Your task to perform on an android device: Search for sushi restaurants on Maps Image 0: 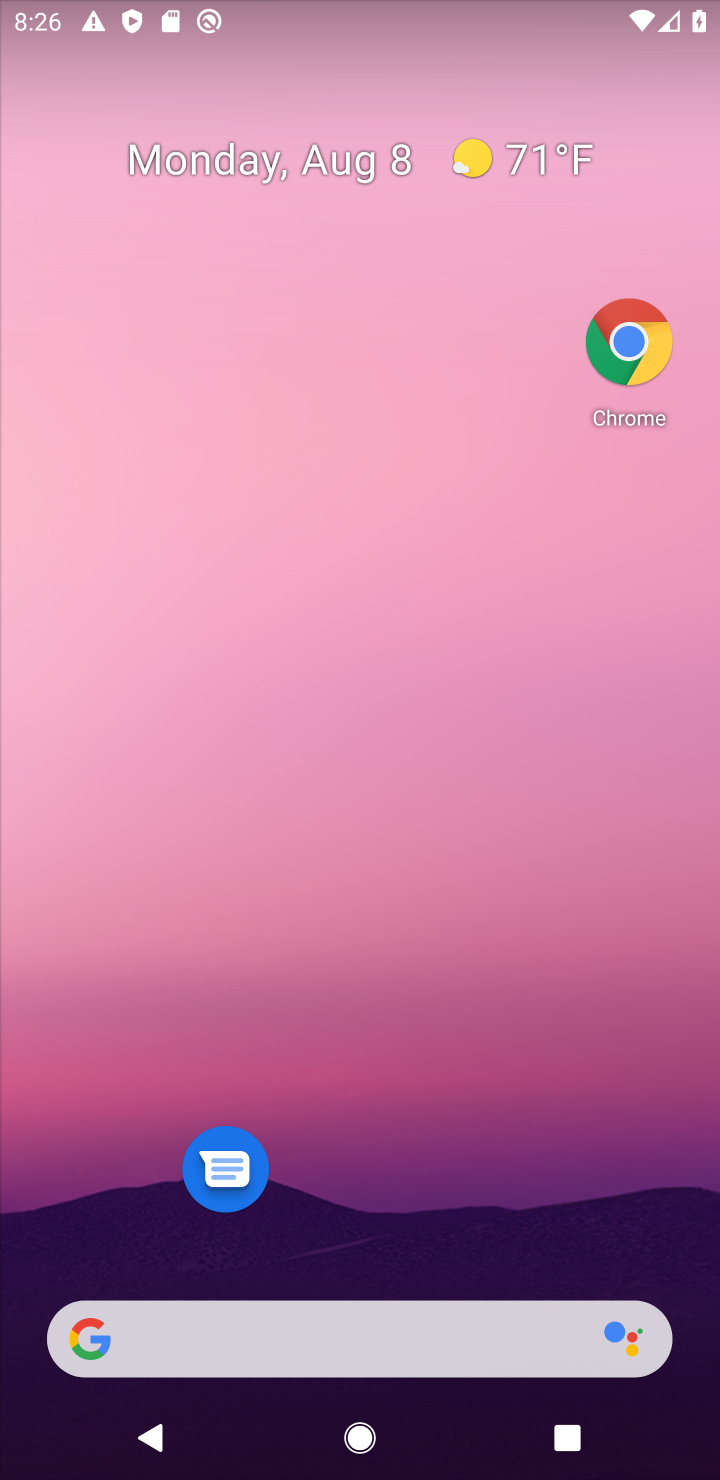
Step 0: drag from (465, 1207) to (558, 195)
Your task to perform on an android device: Search for sushi restaurants on Maps Image 1: 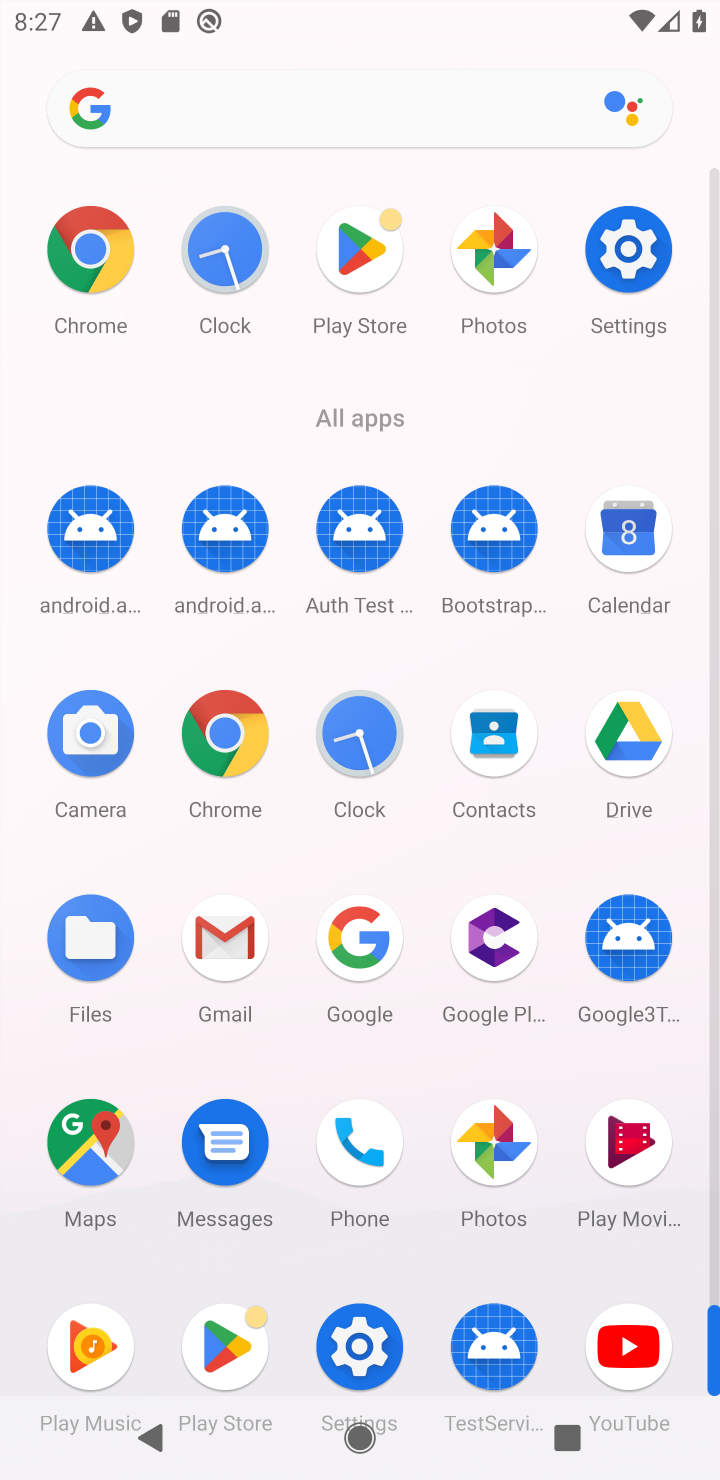
Step 1: click (119, 1167)
Your task to perform on an android device: Search for sushi restaurants on Maps Image 2: 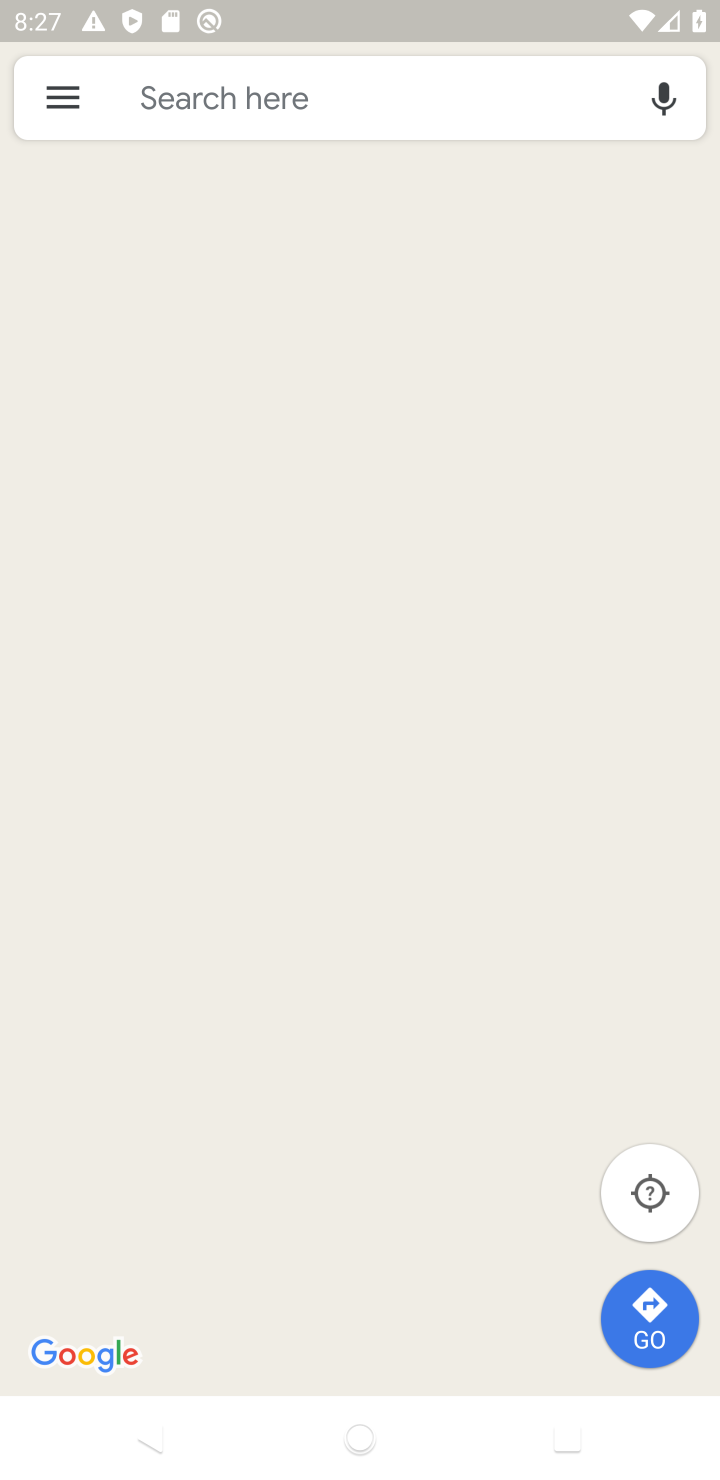
Step 2: click (252, 104)
Your task to perform on an android device: Search for sushi restaurants on Maps Image 3: 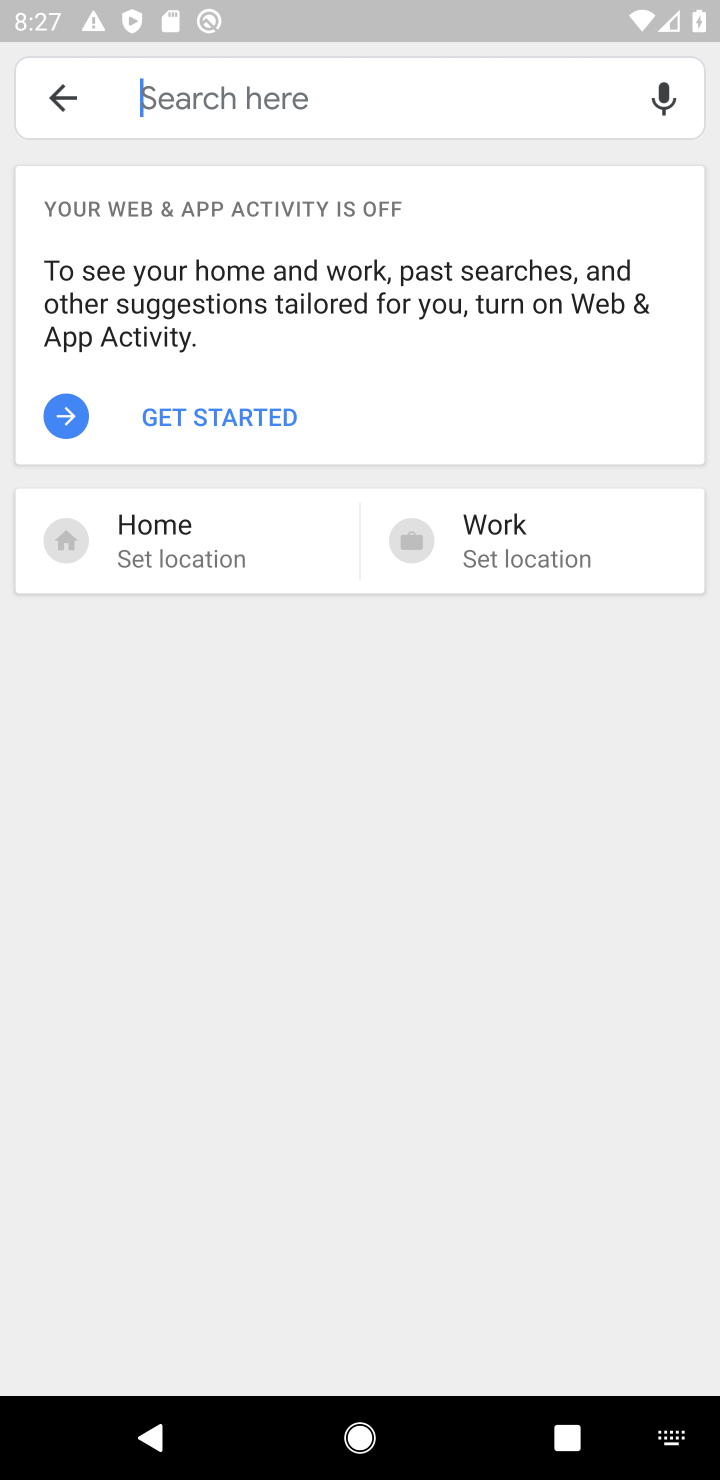
Step 3: click (252, 97)
Your task to perform on an android device: Search for sushi restaurants on Maps Image 4: 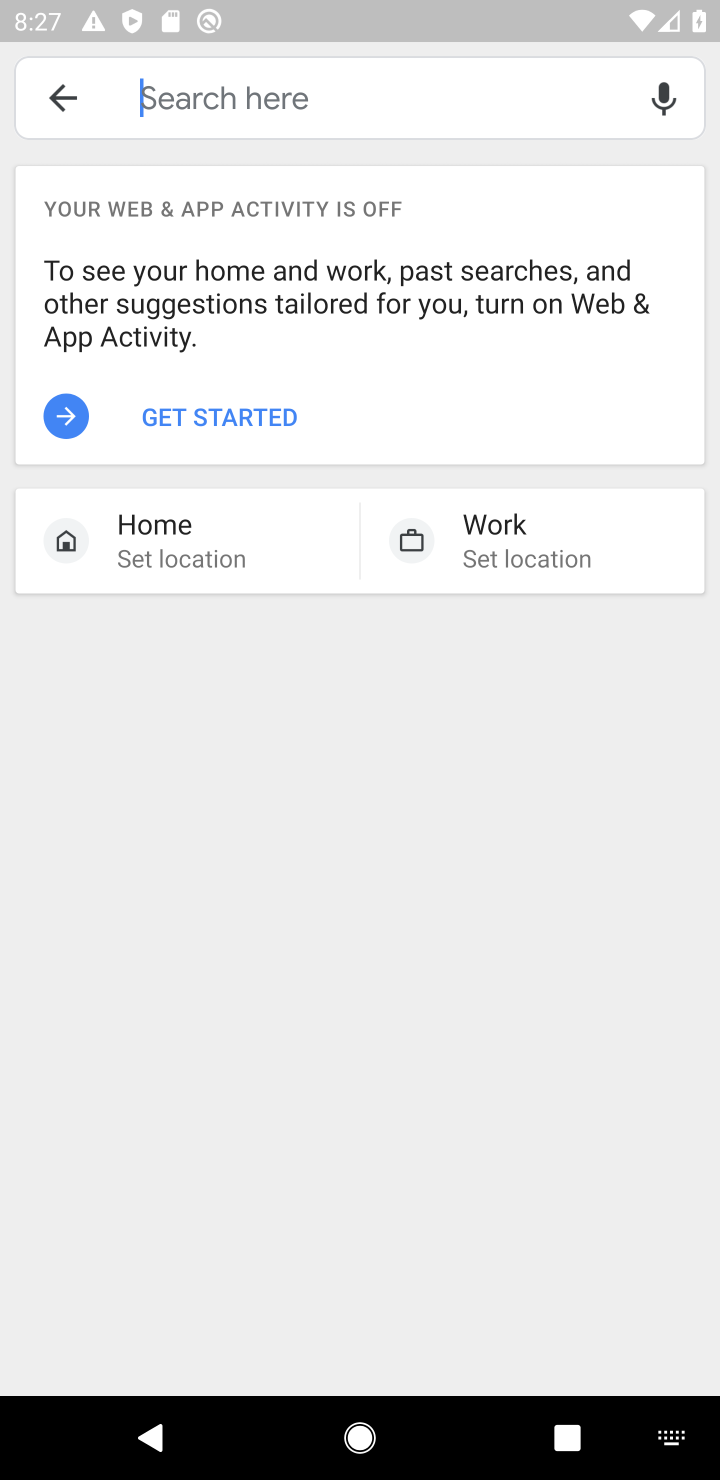
Step 4: click (258, 99)
Your task to perform on an android device: Search for sushi restaurants on Maps Image 5: 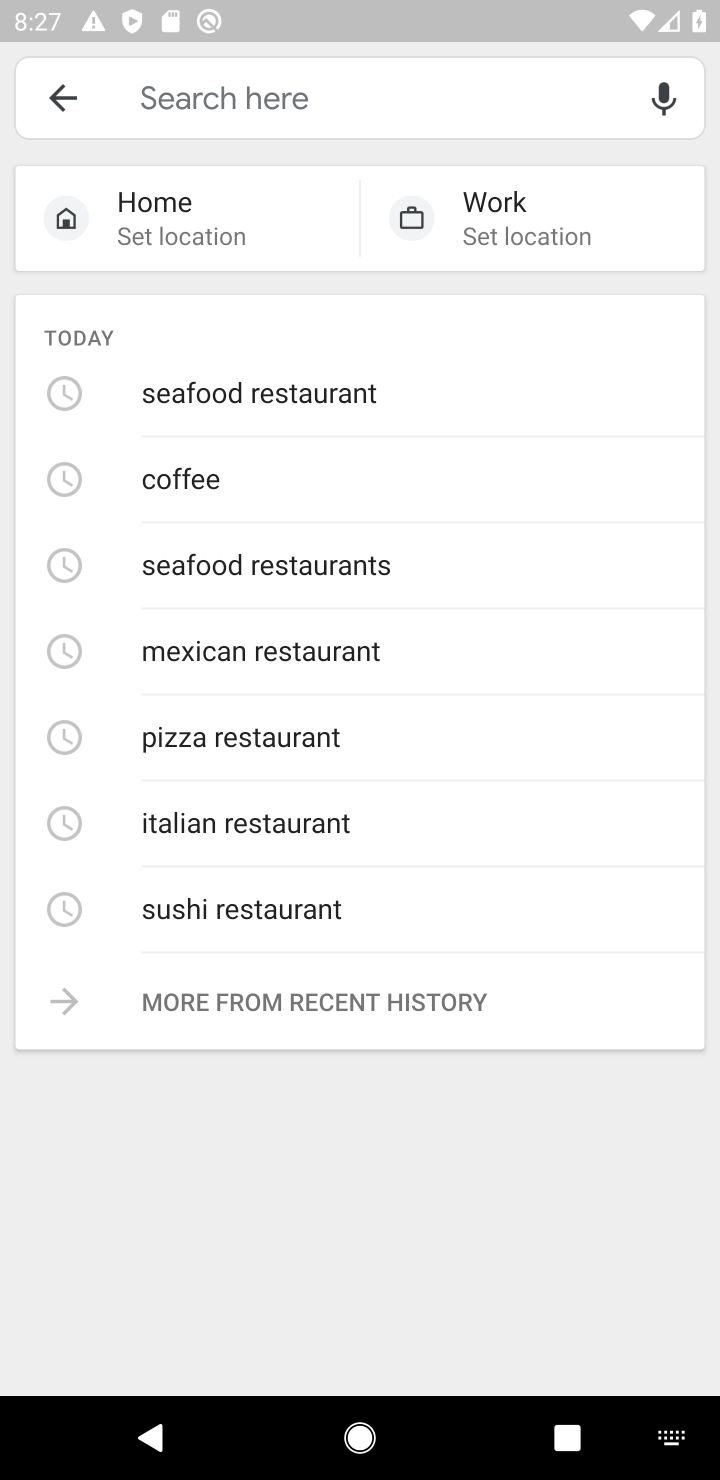
Step 5: click (355, 889)
Your task to perform on an android device: Search for sushi restaurants on Maps Image 6: 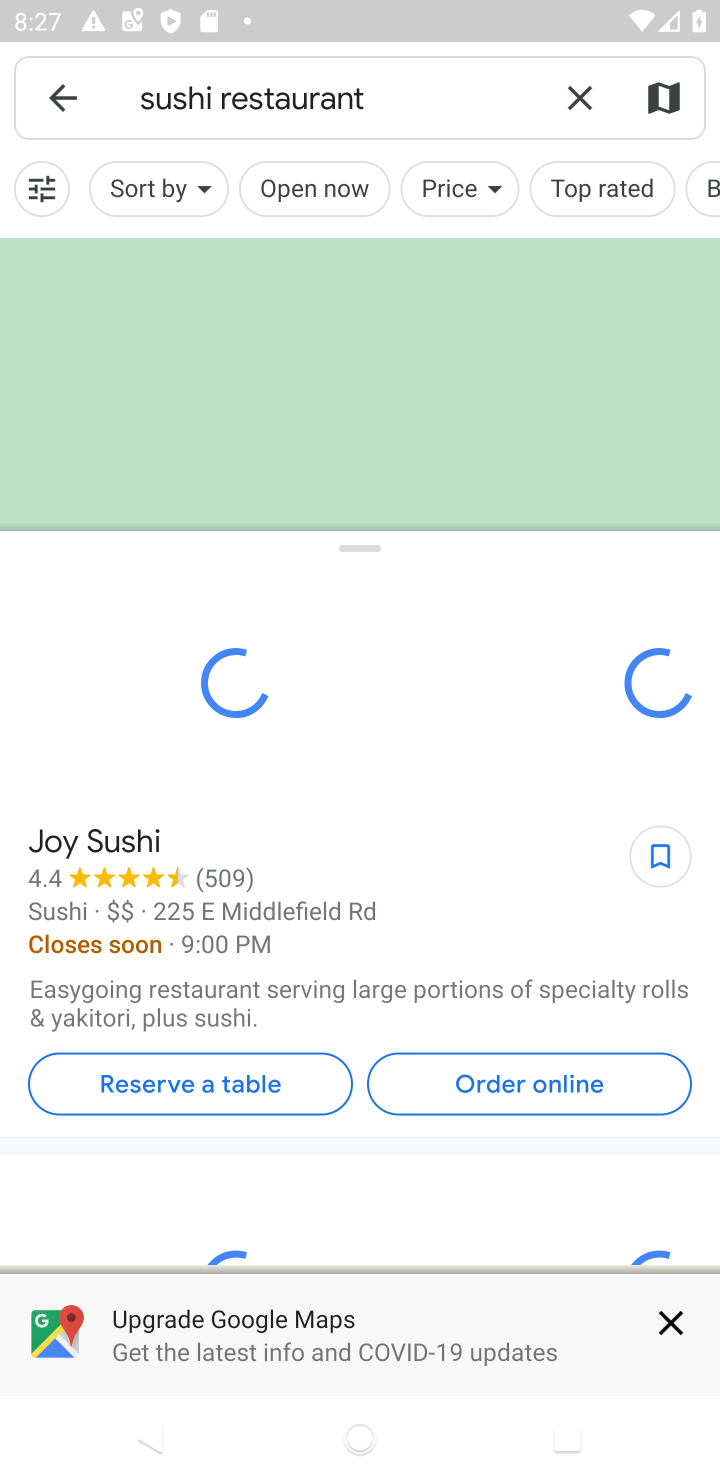
Step 6: task complete